Your task to perform on an android device: open the mobile data screen to see how much data has been used Image 0: 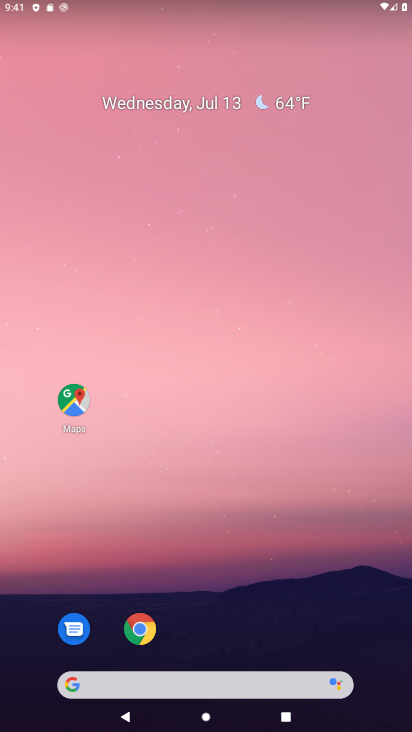
Step 0: drag from (237, 642) to (224, 262)
Your task to perform on an android device: open the mobile data screen to see how much data has been used Image 1: 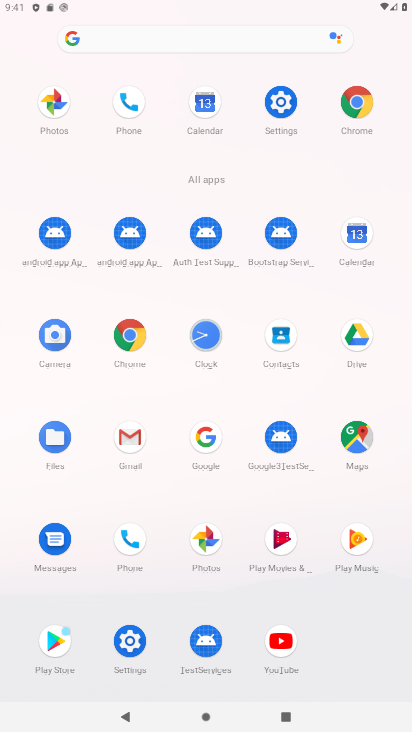
Step 1: click (129, 641)
Your task to perform on an android device: open the mobile data screen to see how much data has been used Image 2: 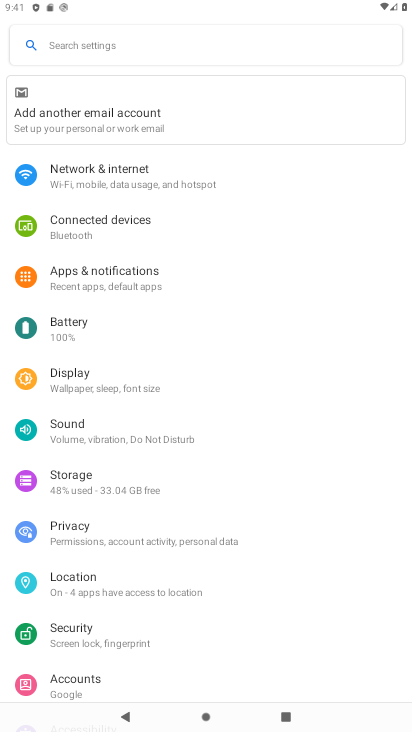
Step 2: click (121, 165)
Your task to perform on an android device: open the mobile data screen to see how much data has been used Image 3: 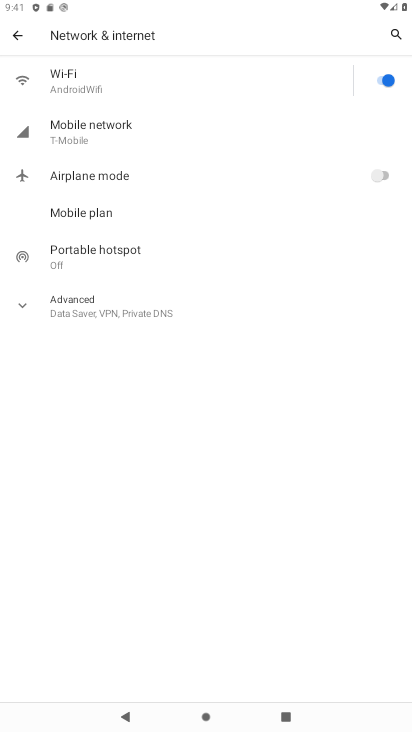
Step 3: click (128, 129)
Your task to perform on an android device: open the mobile data screen to see how much data has been used Image 4: 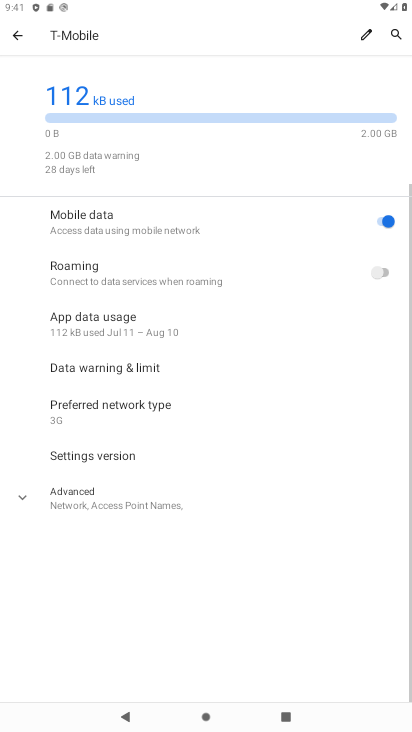
Step 4: click (133, 234)
Your task to perform on an android device: open the mobile data screen to see how much data has been used Image 5: 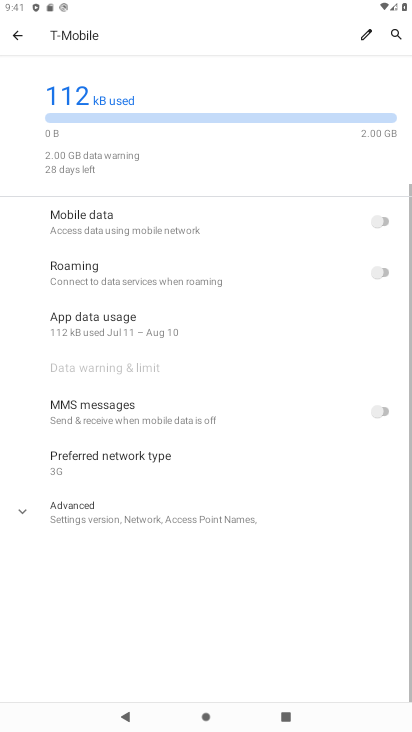
Step 5: click (377, 223)
Your task to perform on an android device: open the mobile data screen to see how much data has been used Image 6: 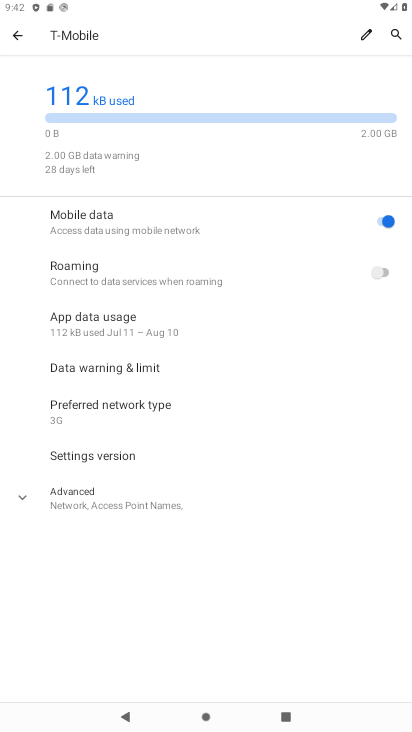
Step 6: task complete